Your task to perform on an android device: Open calendar and show me the second week of next month Image 0: 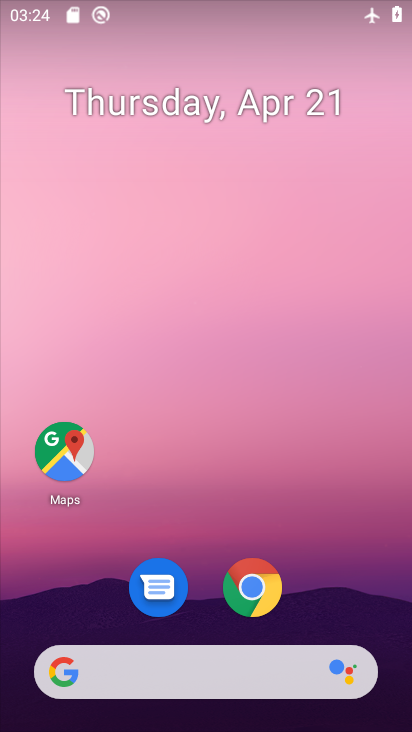
Step 0: drag from (358, 576) to (348, 127)
Your task to perform on an android device: Open calendar and show me the second week of next month Image 1: 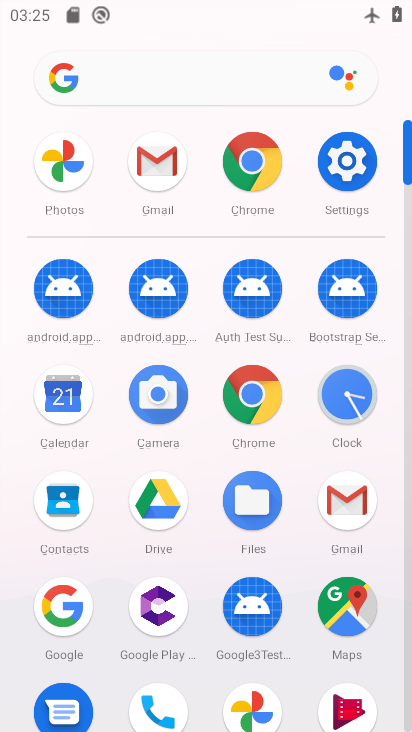
Step 1: click (70, 404)
Your task to perform on an android device: Open calendar and show me the second week of next month Image 2: 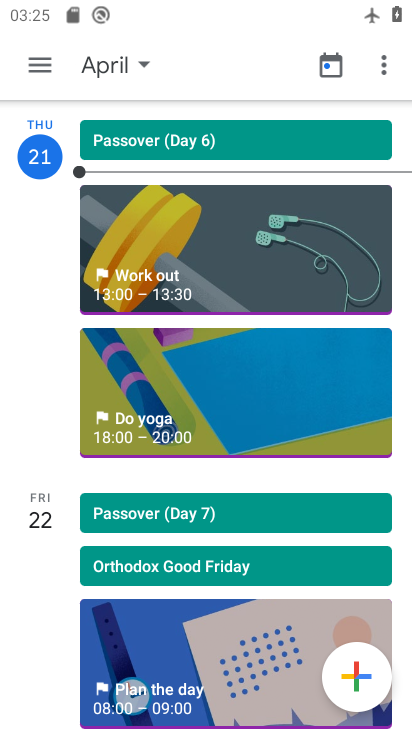
Step 2: click (142, 61)
Your task to perform on an android device: Open calendar and show me the second week of next month Image 3: 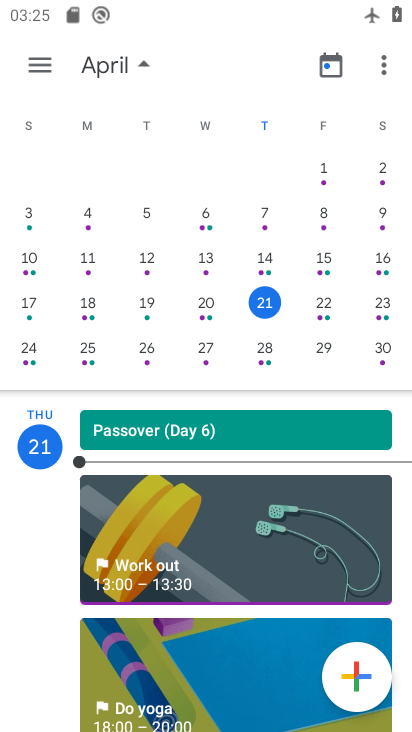
Step 3: drag from (388, 282) to (4, 278)
Your task to perform on an android device: Open calendar and show me the second week of next month Image 4: 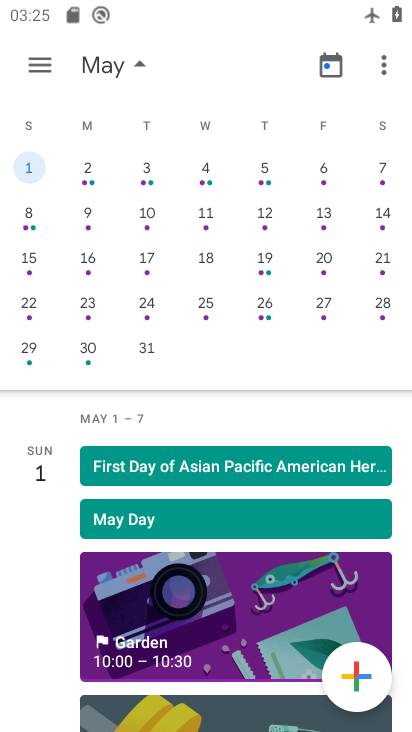
Step 4: click (140, 215)
Your task to perform on an android device: Open calendar and show me the second week of next month Image 5: 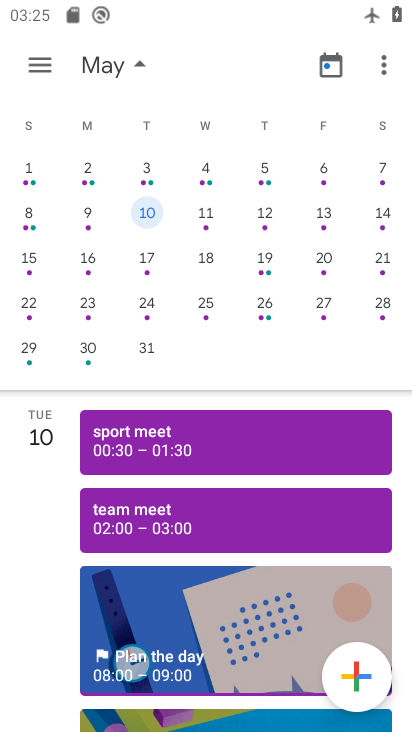
Step 5: task complete